Your task to perform on an android device: set an alarm Image 0: 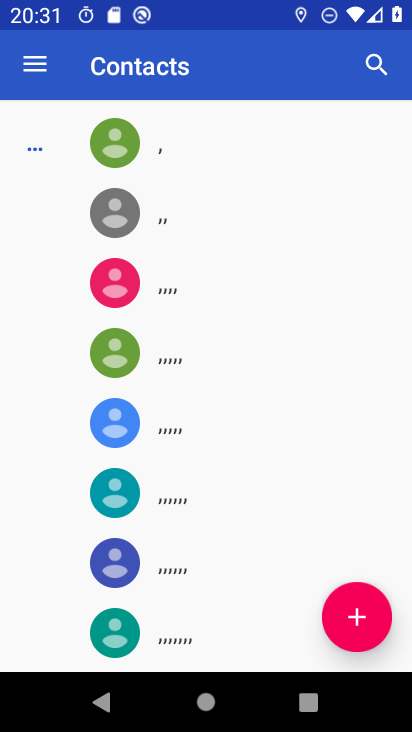
Step 0: press home button
Your task to perform on an android device: set an alarm Image 1: 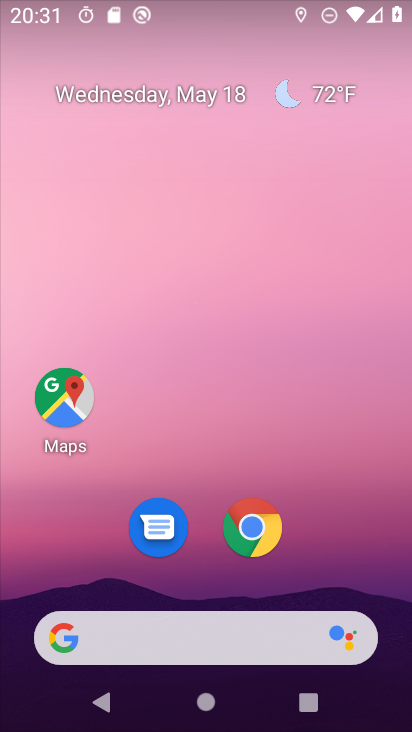
Step 1: drag from (391, 660) to (325, 125)
Your task to perform on an android device: set an alarm Image 2: 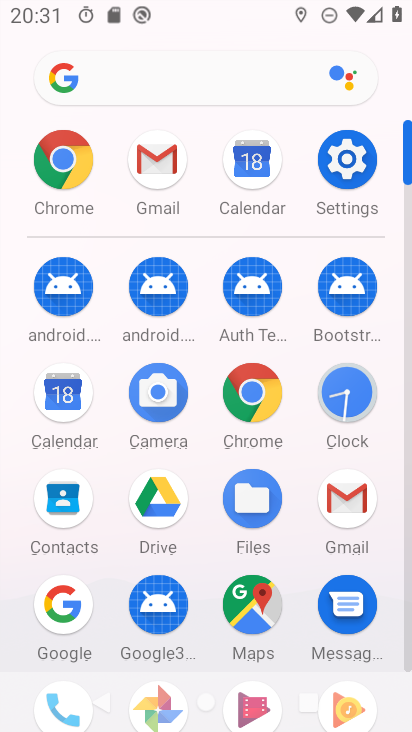
Step 2: click (365, 393)
Your task to perform on an android device: set an alarm Image 3: 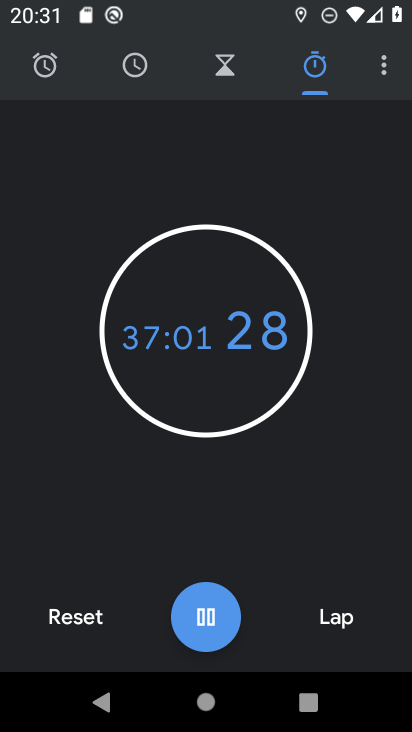
Step 3: click (47, 57)
Your task to perform on an android device: set an alarm Image 4: 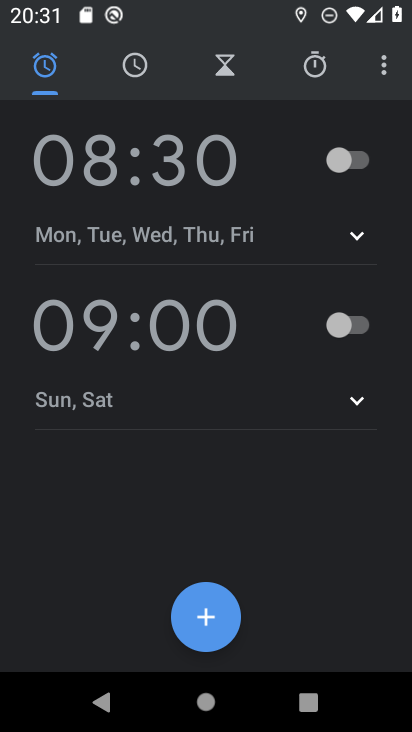
Step 4: click (347, 159)
Your task to perform on an android device: set an alarm Image 5: 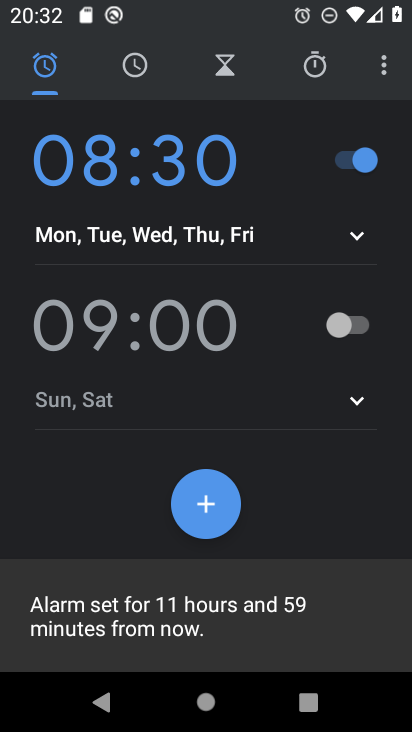
Step 5: task complete